Your task to perform on an android device: toggle data saver in the chrome app Image 0: 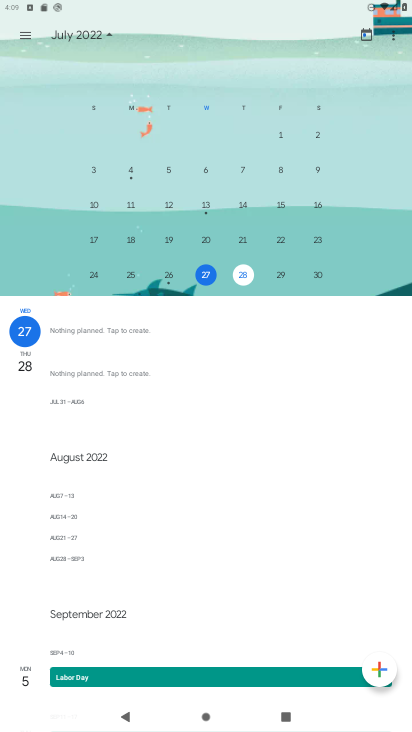
Step 0: press home button
Your task to perform on an android device: toggle data saver in the chrome app Image 1: 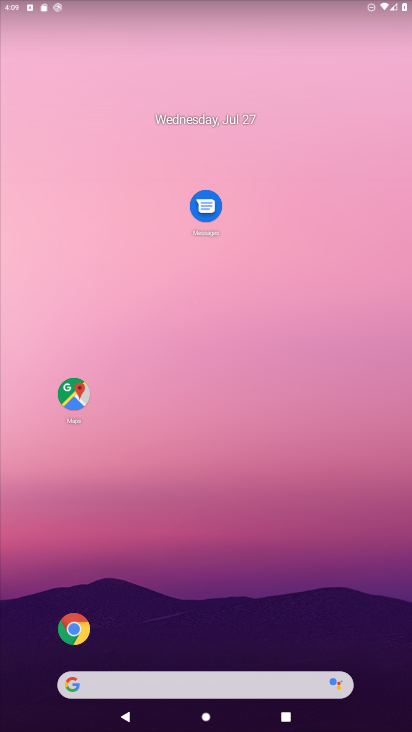
Step 1: click (81, 615)
Your task to perform on an android device: toggle data saver in the chrome app Image 2: 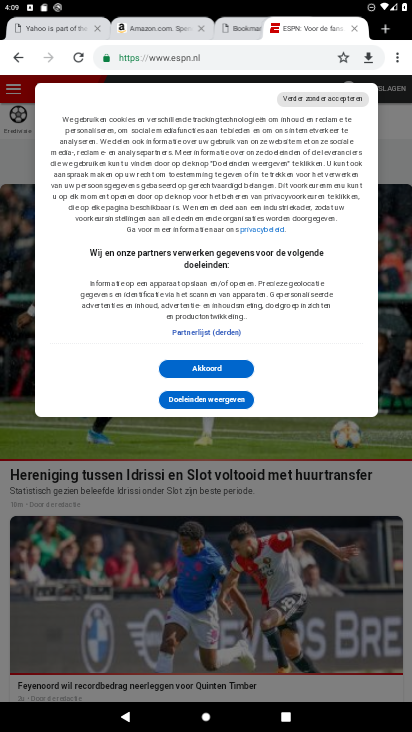
Step 2: click (404, 62)
Your task to perform on an android device: toggle data saver in the chrome app Image 3: 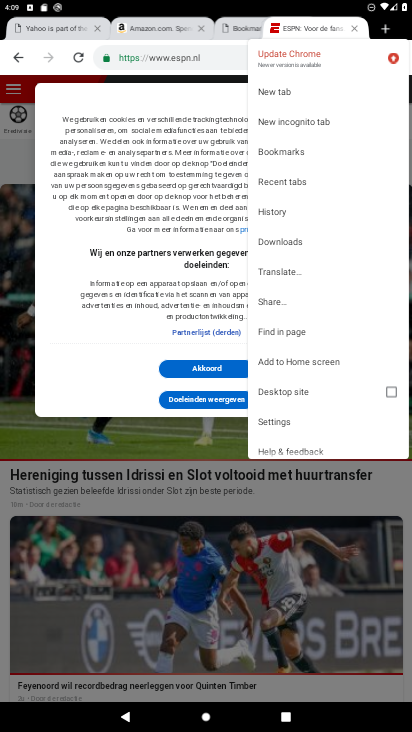
Step 3: click (306, 425)
Your task to perform on an android device: toggle data saver in the chrome app Image 4: 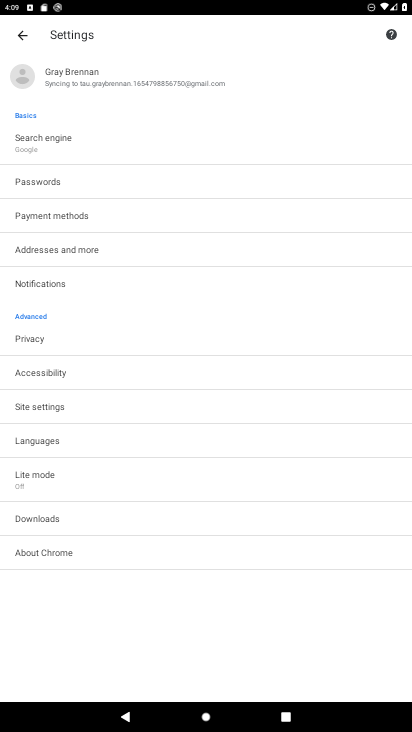
Step 4: click (82, 463)
Your task to perform on an android device: toggle data saver in the chrome app Image 5: 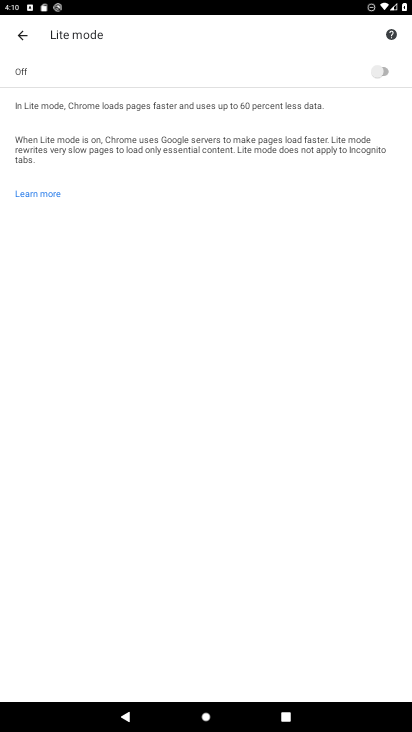
Step 5: click (377, 85)
Your task to perform on an android device: toggle data saver in the chrome app Image 6: 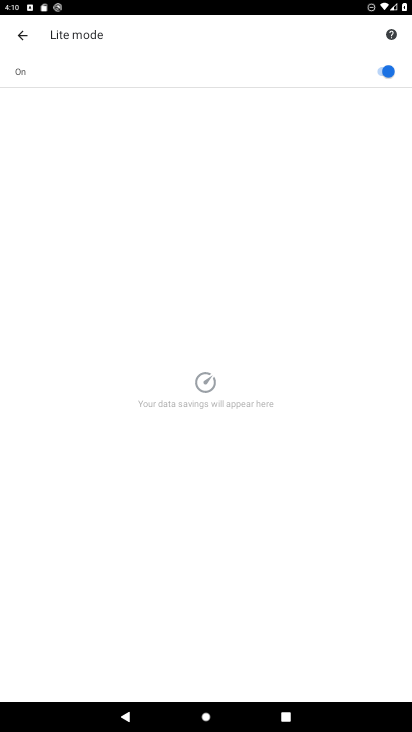
Step 6: click (377, 85)
Your task to perform on an android device: toggle data saver in the chrome app Image 7: 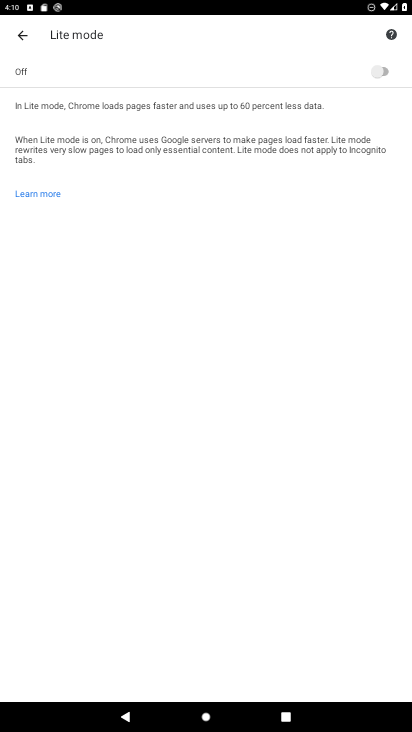
Step 7: task complete